Your task to perform on an android device: turn on the 24-hour format for clock Image 0: 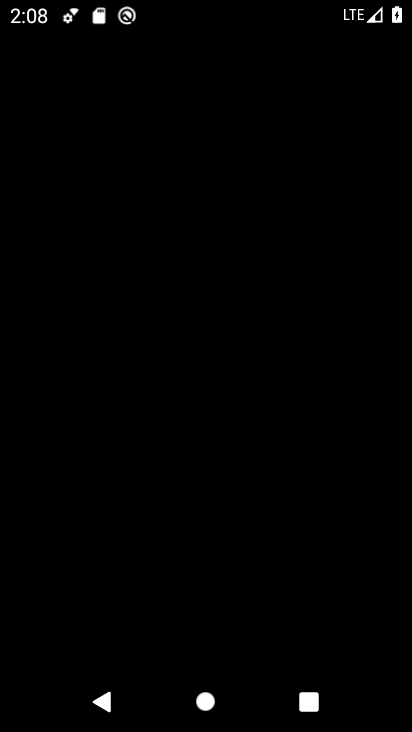
Step 0: press home button
Your task to perform on an android device: turn on the 24-hour format for clock Image 1: 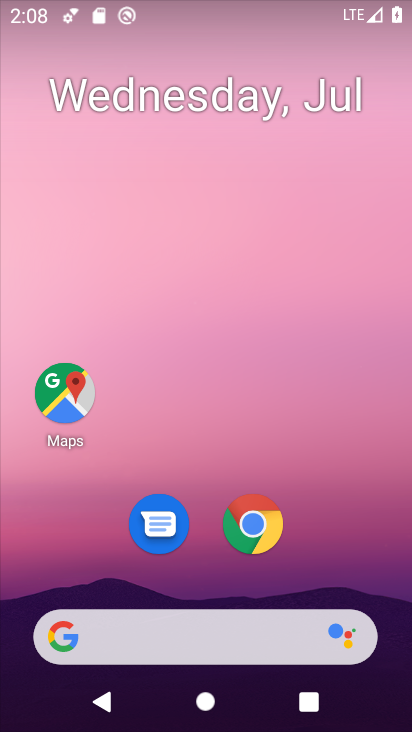
Step 1: drag from (348, 579) to (307, 114)
Your task to perform on an android device: turn on the 24-hour format for clock Image 2: 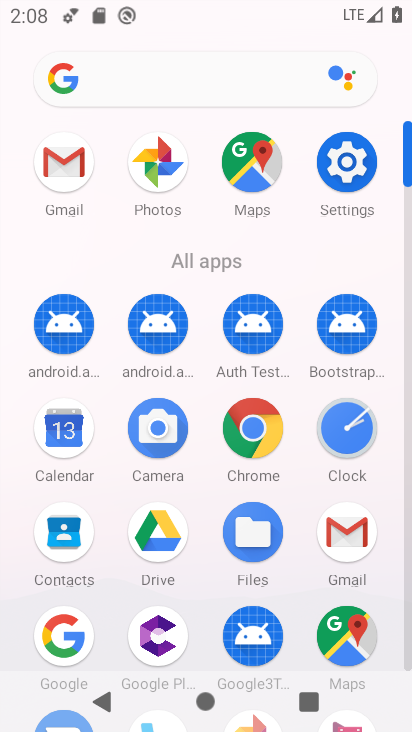
Step 2: click (357, 430)
Your task to perform on an android device: turn on the 24-hour format for clock Image 3: 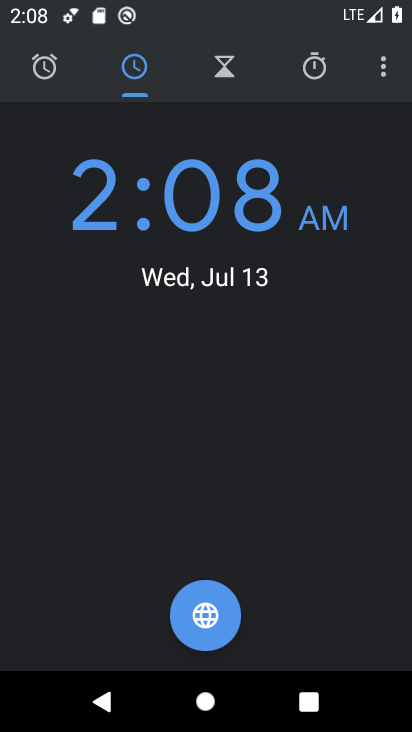
Step 3: click (387, 72)
Your task to perform on an android device: turn on the 24-hour format for clock Image 4: 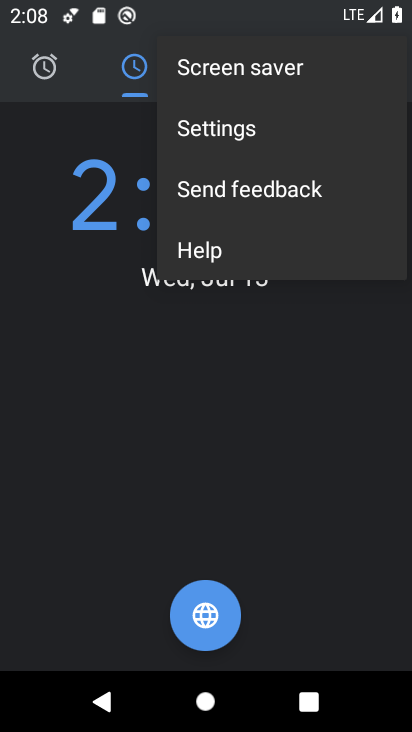
Step 4: click (279, 138)
Your task to perform on an android device: turn on the 24-hour format for clock Image 5: 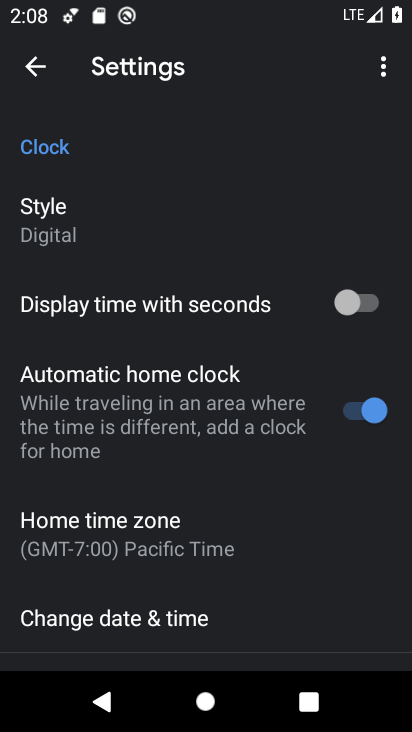
Step 5: click (266, 618)
Your task to perform on an android device: turn on the 24-hour format for clock Image 6: 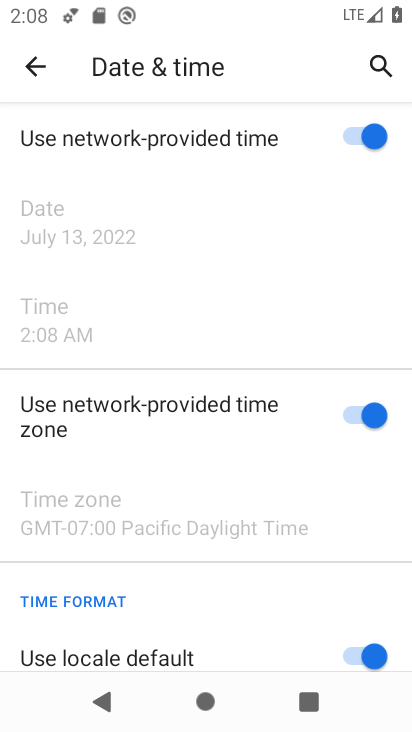
Step 6: drag from (276, 615) to (267, 414)
Your task to perform on an android device: turn on the 24-hour format for clock Image 7: 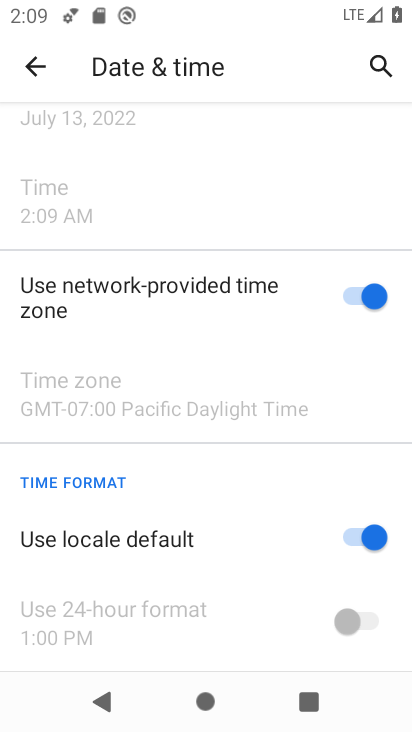
Step 7: click (358, 537)
Your task to perform on an android device: turn on the 24-hour format for clock Image 8: 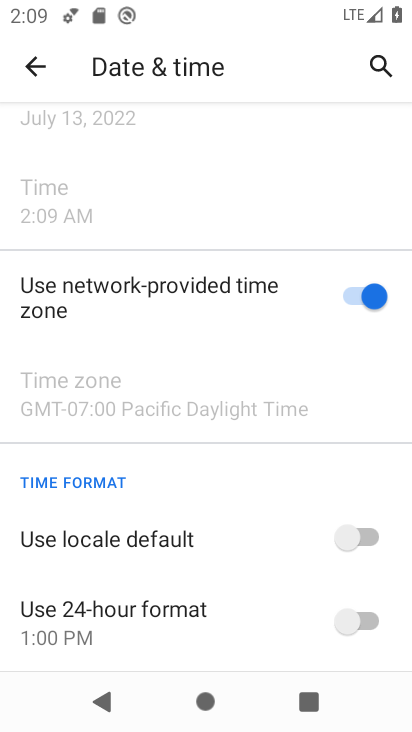
Step 8: click (372, 627)
Your task to perform on an android device: turn on the 24-hour format for clock Image 9: 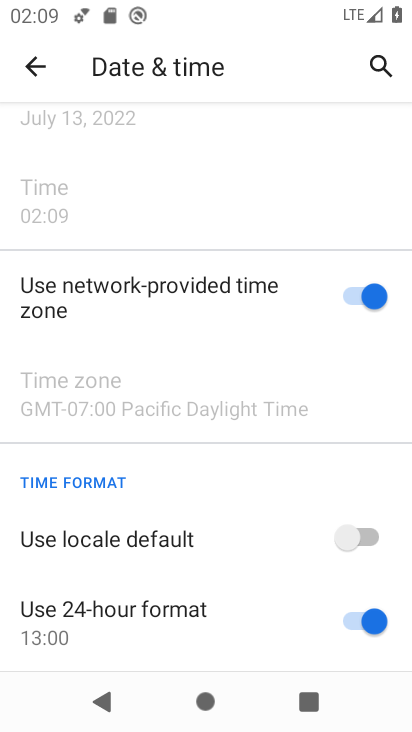
Step 9: task complete